Your task to perform on an android device: Do I have any events today? Image 0: 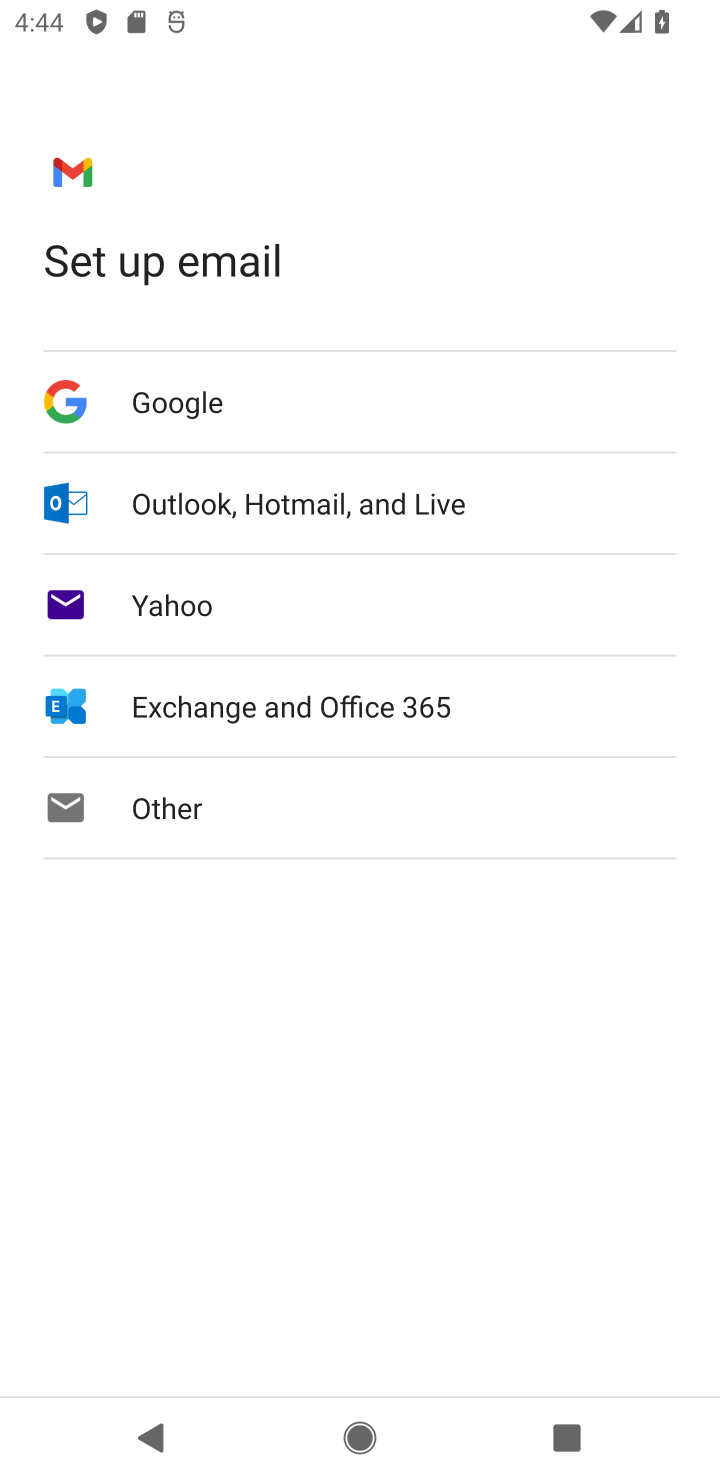
Step 0: press home button
Your task to perform on an android device: Do I have any events today? Image 1: 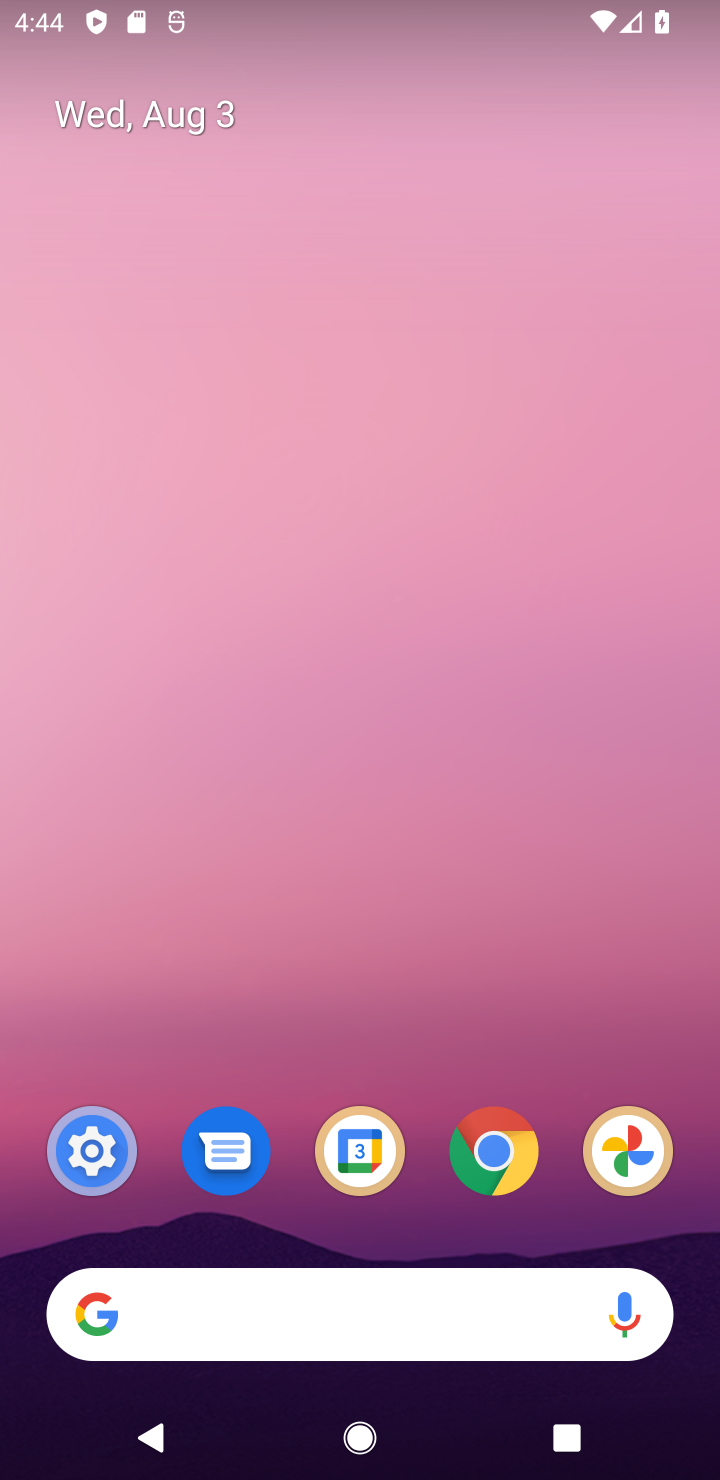
Step 1: drag from (412, 1093) to (250, 13)
Your task to perform on an android device: Do I have any events today? Image 2: 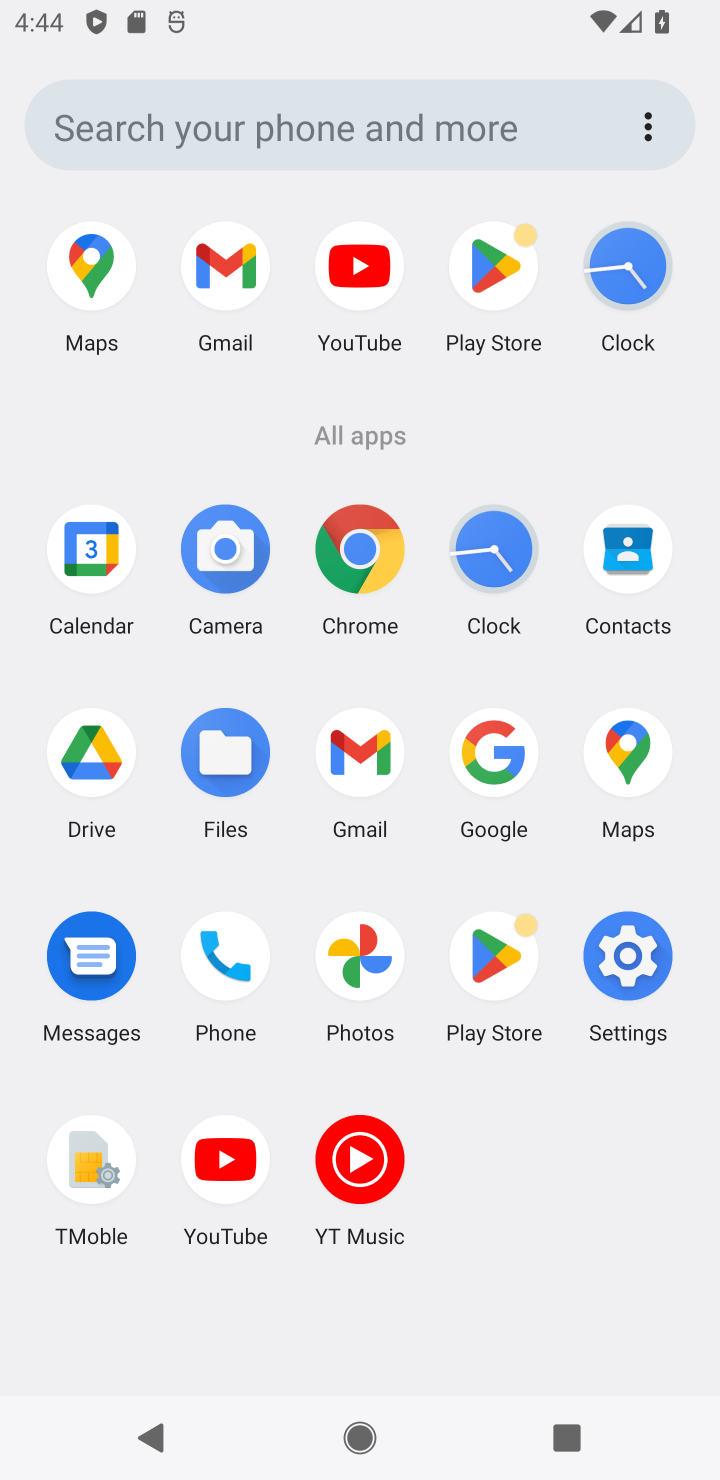
Step 2: click (101, 562)
Your task to perform on an android device: Do I have any events today? Image 3: 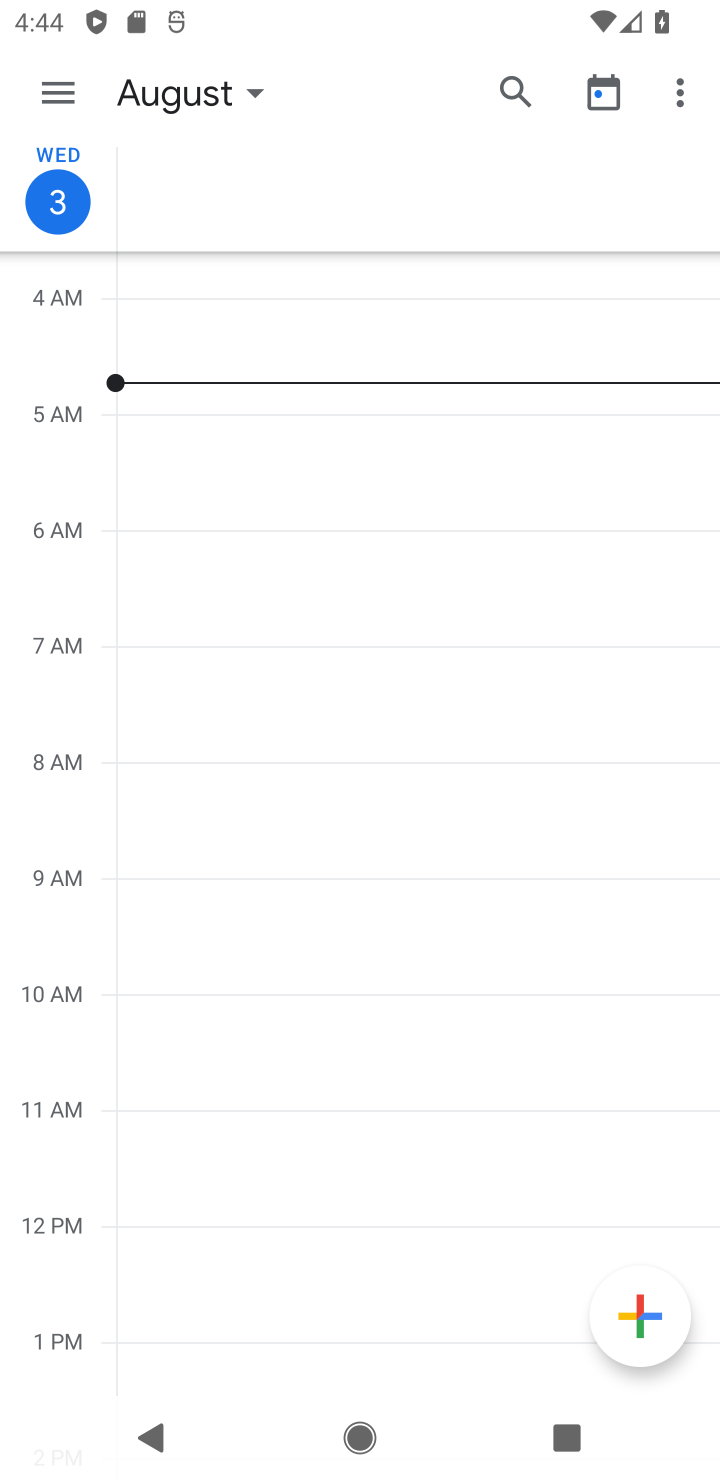
Step 3: click (42, 90)
Your task to perform on an android device: Do I have any events today? Image 4: 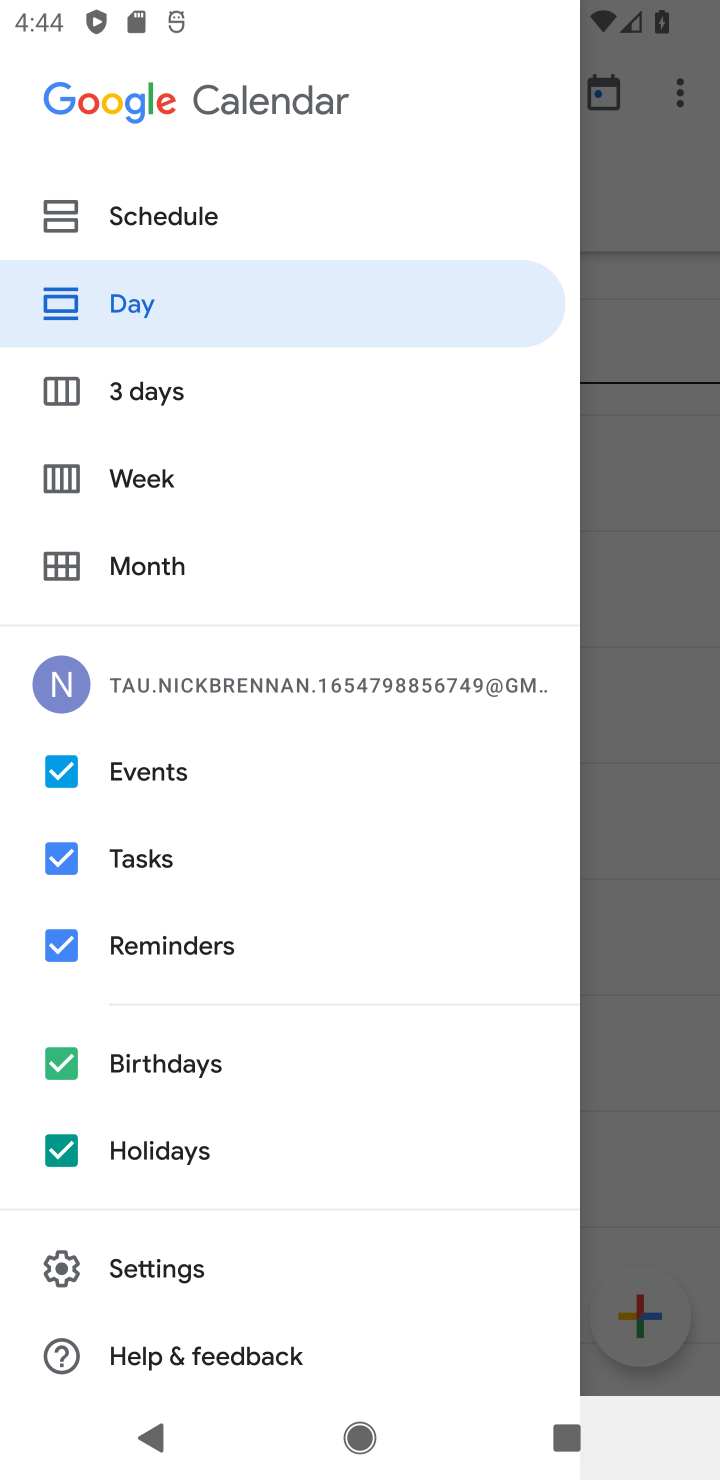
Step 4: click (193, 208)
Your task to perform on an android device: Do I have any events today? Image 5: 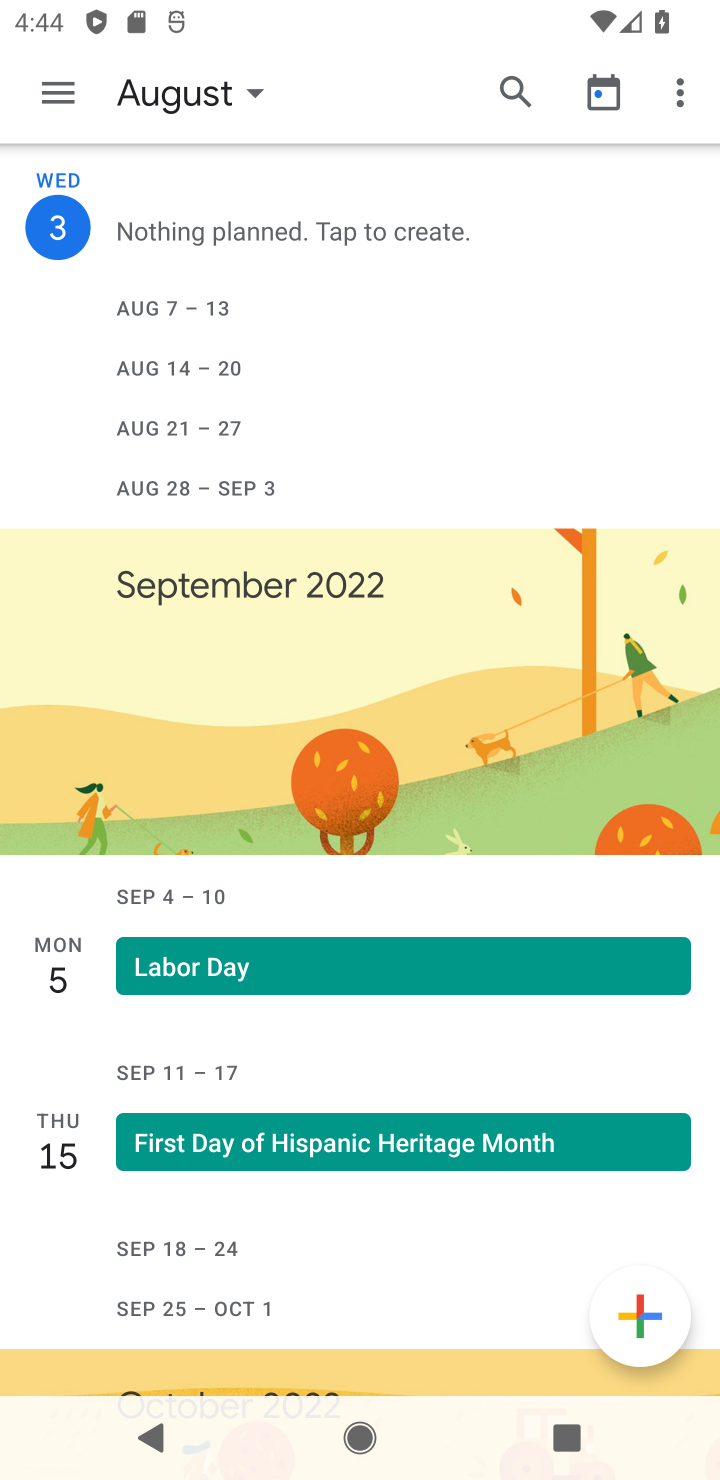
Step 5: task complete